Your task to perform on an android device: change keyboard looks Image 0: 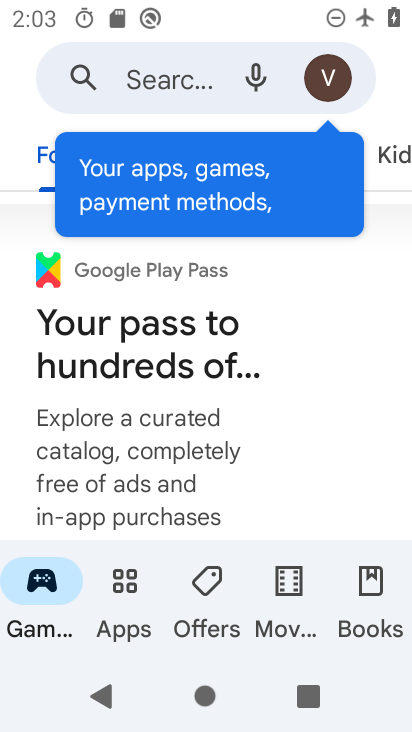
Step 0: press back button
Your task to perform on an android device: change keyboard looks Image 1: 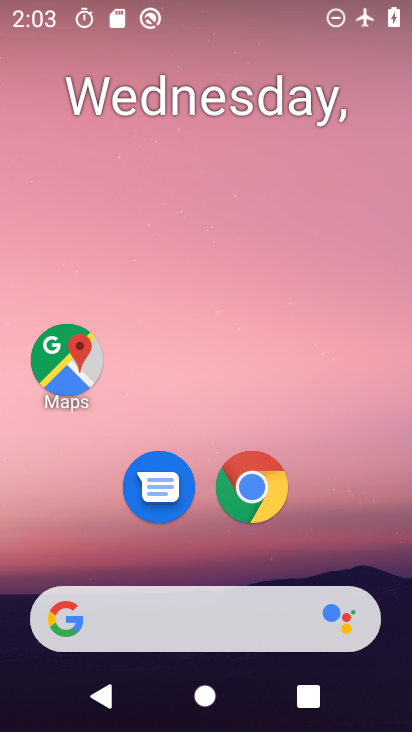
Step 1: drag from (237, 542) to (250, 41)
Your task to perform on an android device: change keyboard looks Image 2: 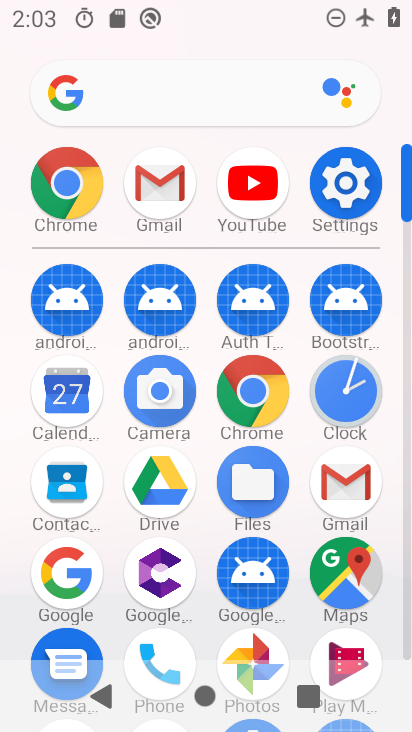
Step 2: click (339, 193)
Your task to perform on an android device: change keyboard looks Image 3: 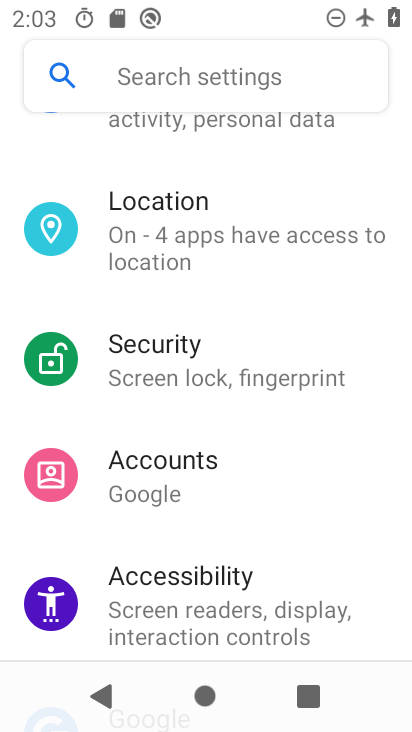
Step 3: drag from (153, 584) to (214, 15)
Your task to perform on an android device: change keyboard looks Image 4: 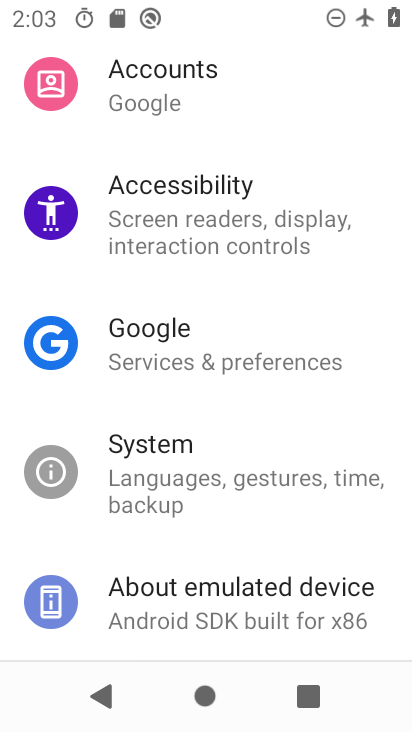
Step 4: drag from (156, 644) to (242, 1)
Your task to perform on an android device: change keyboard looks Image 5: 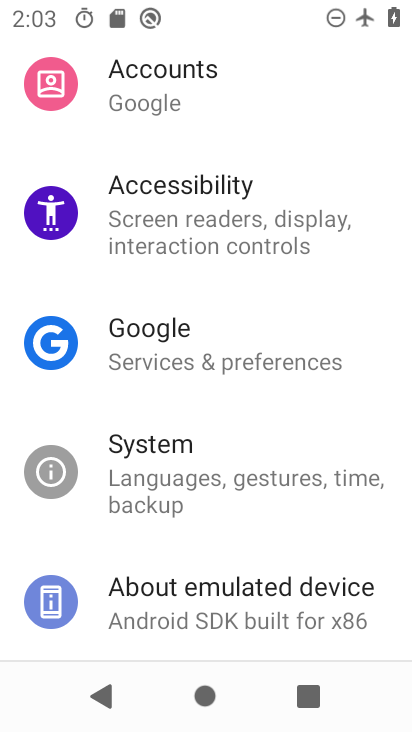
Step 5: click (155, 591)
Your task to perform on an android device: change keyboard looks Image 6: 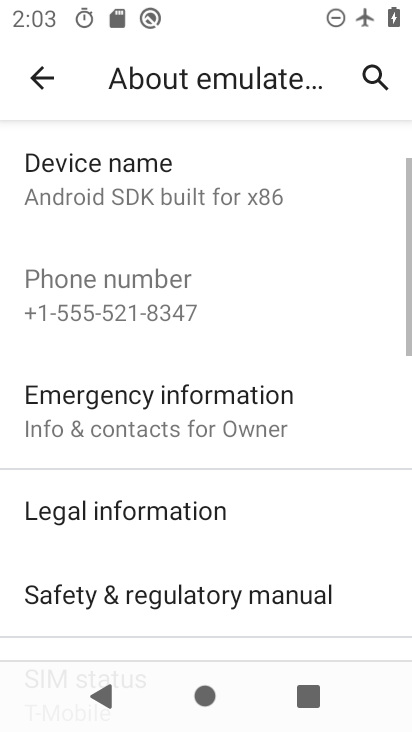
Step 6: drag from (155, 591) to (272, 10)
Your task to perform on an android device: change keyboard looks Image 7: 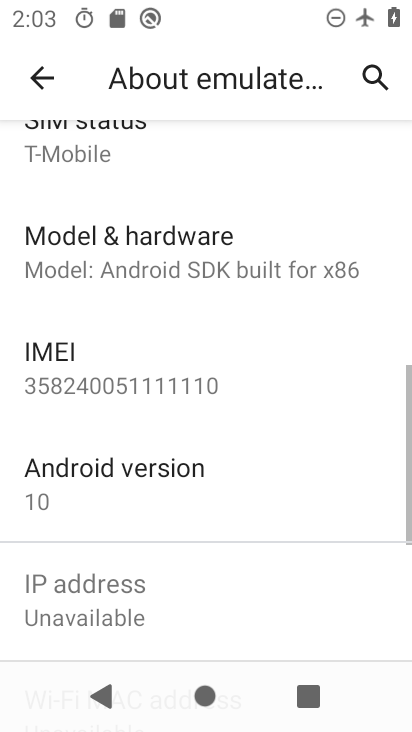
Step 7: click (36, 60)
Your task to perform on an android device: change keyboard looks Image 8: 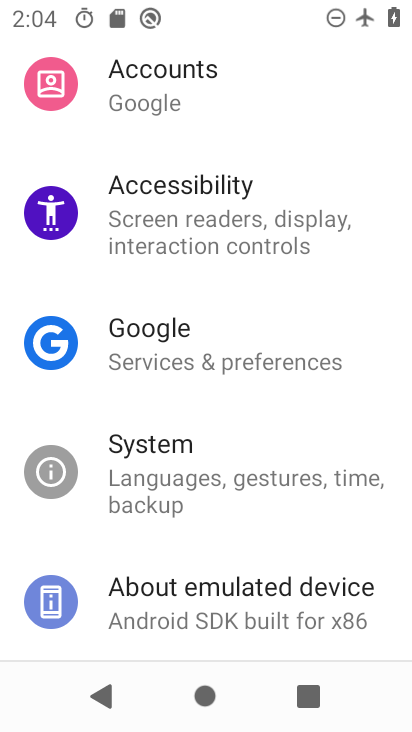
Step 8: click (167, 497)
Your task to perform on an android device: change keyboard looks Image 9: 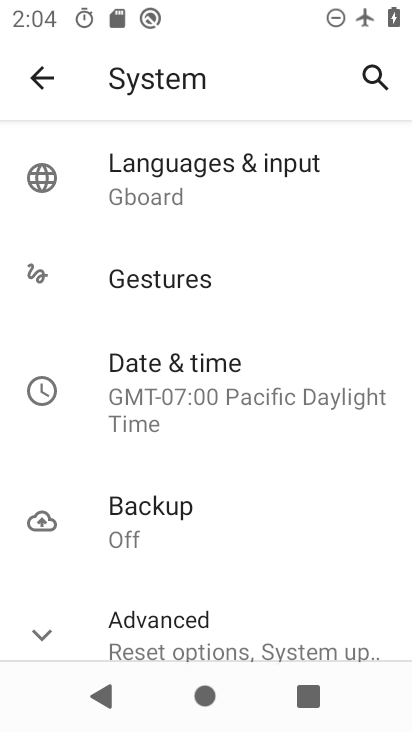
Step 9: drag from (237, 172) to (181, 656)
Your task to perform on an android device: change keyboard looks Image 10: 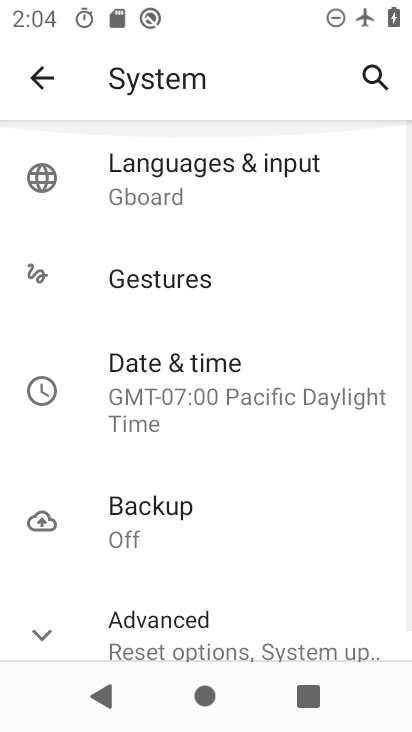
Step 10: click (177, 194)
Your task to perform on an android device: change keyboard looks Image 11: 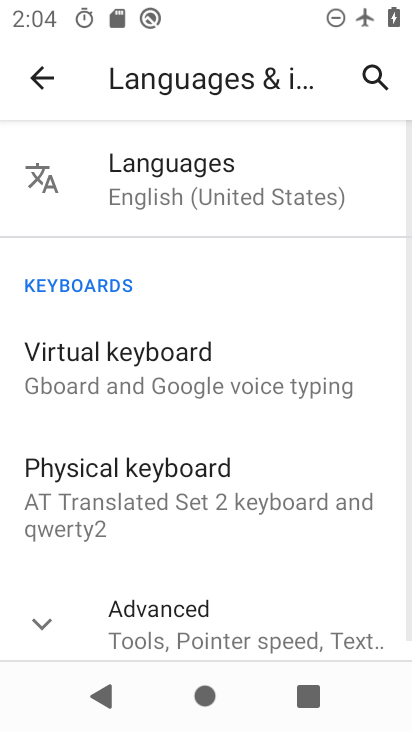
Step 11: click (172, 380)
Your task to perform on an android device: change keyboard looks Image 12: 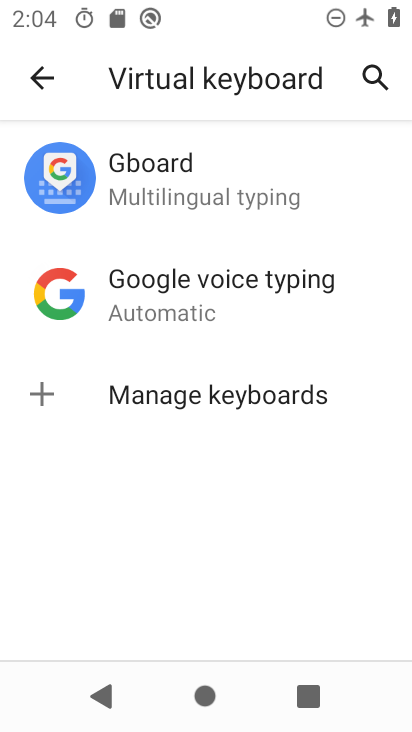
Step 12: click (200, 175)
Your task to perform on an android device: change keyboard looks Image 13: 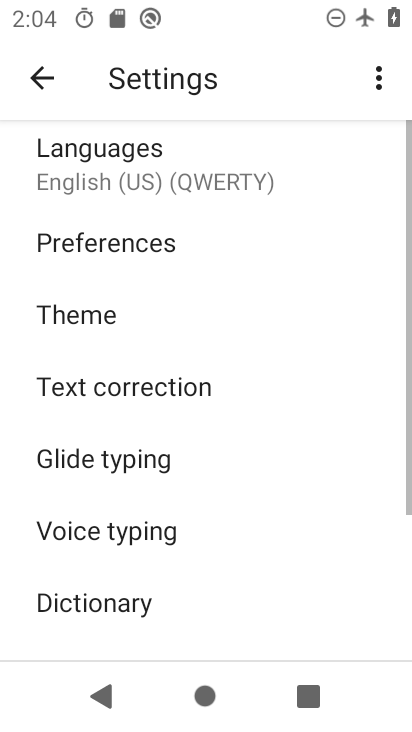
Step 13: click (127, 316)
Your task to perform on an android device: change keyboard looks Image 14: 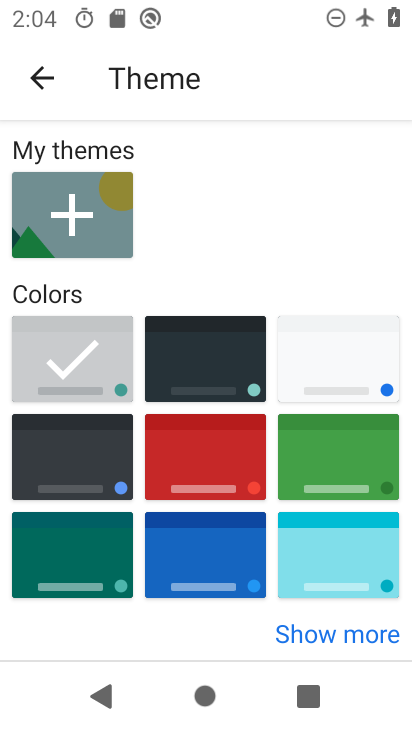
Step 14: click (347, 455)
Your task to perform on an android device: change keyboard looks Image 15: 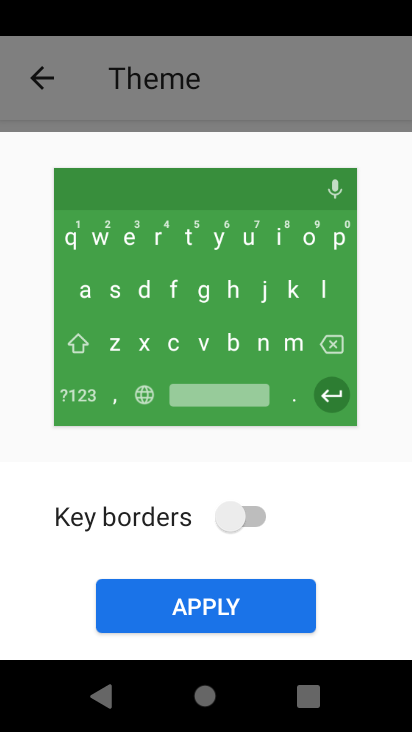
Step 15: click (212, 612)
Your task to perform on an android device: change keyboard looks Image 16: 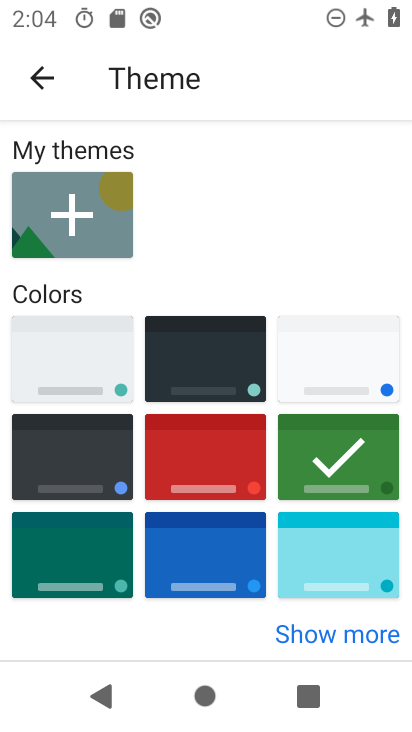
Step 16: task complete